Your task to perform on an android device: all mails in gmail Image 0: 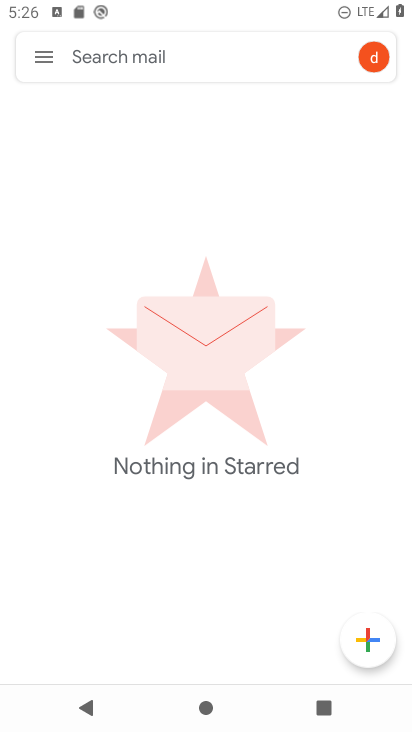
Step 0: press home button
Your task to perform on an android device: all mails in gmail Image 1: 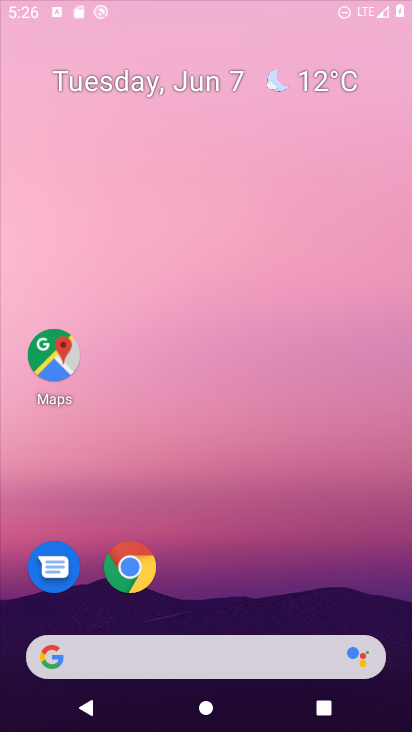
Step 1: drag from (267, 683) to (306, 36)
Your task to perform on an android device: all mails in gmail Image 2: 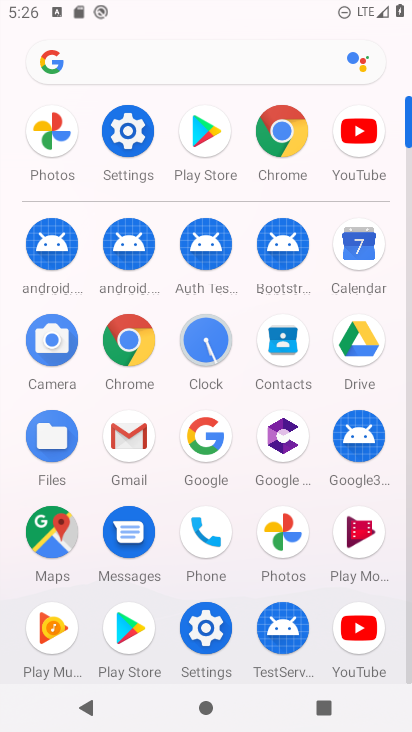
Step 2: click (139, 445)
Your task to perform on an android device: all mails in gmail Image 3: 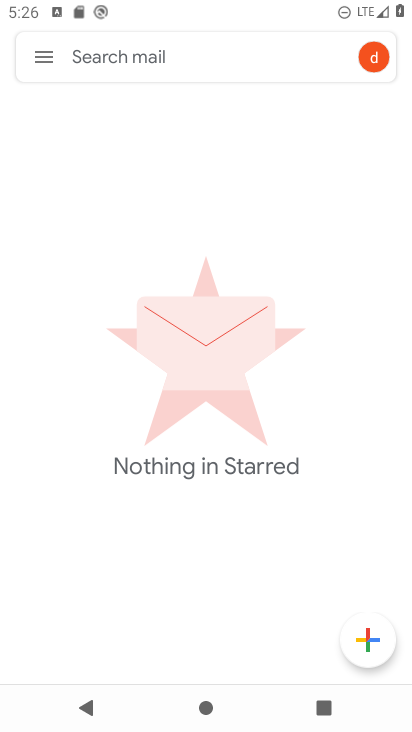
Step 3: click (51, 52)
Your task to perform on an android device: all mails in gmail Image 4: 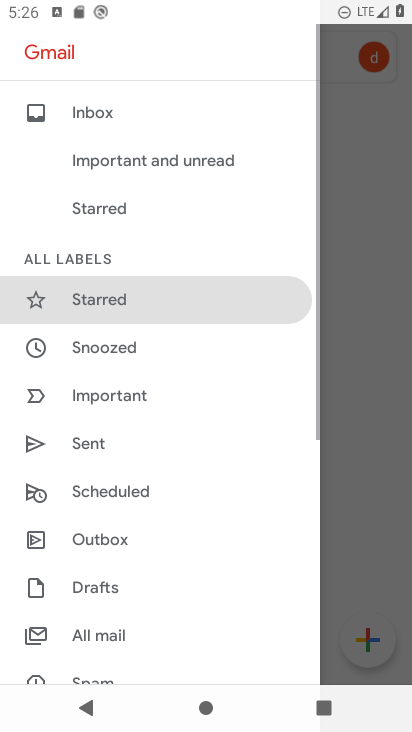
Step 4: click (163, 640)
Your task to perform on an android device: all mails in gmail Image 5: 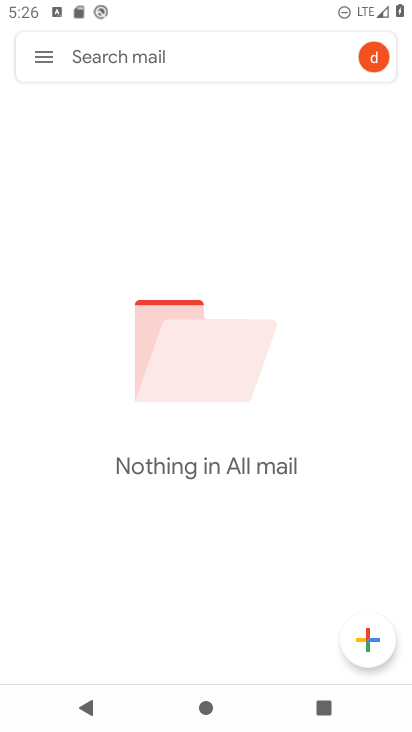
Step 5: task complete